Your task to perform on an android device: Go to internet settings Image 0: 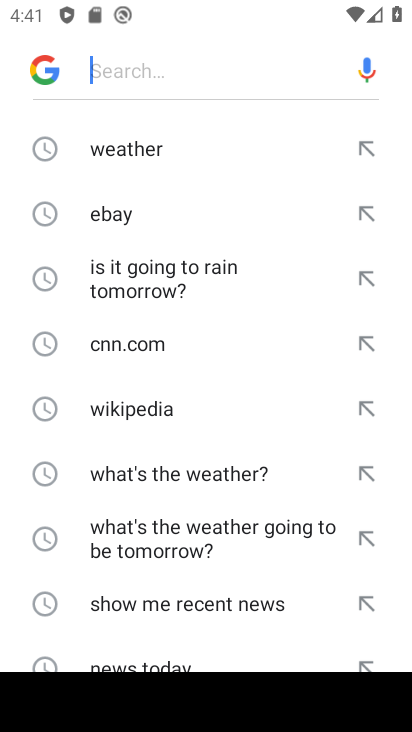
Step 0: press back button
Your task to perform on an android device: Go to internet settings Image 1: 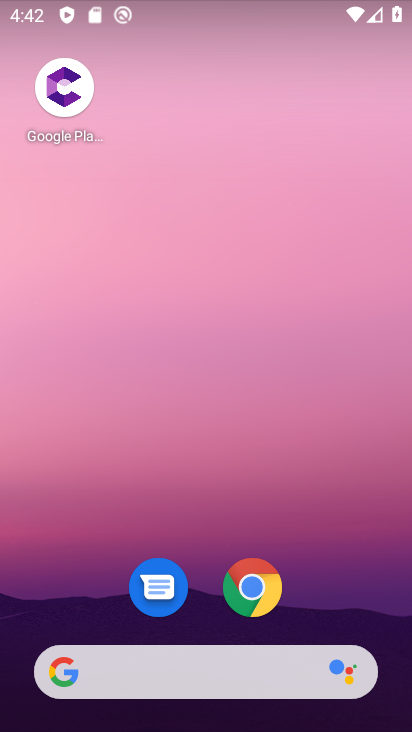
Step 1: drag from (235, 664) to (183, 52)
Your task to perform on an android device: Go to internet settings Image 2: 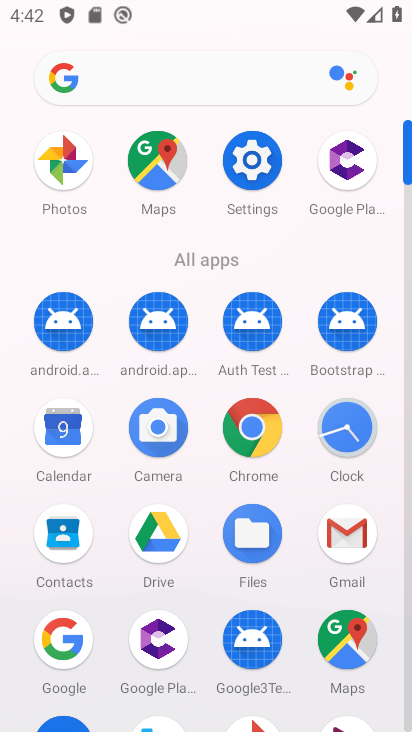
Step 2: click (249, 148)
Your task to perform on an android device: Go to internet settings Image 3: 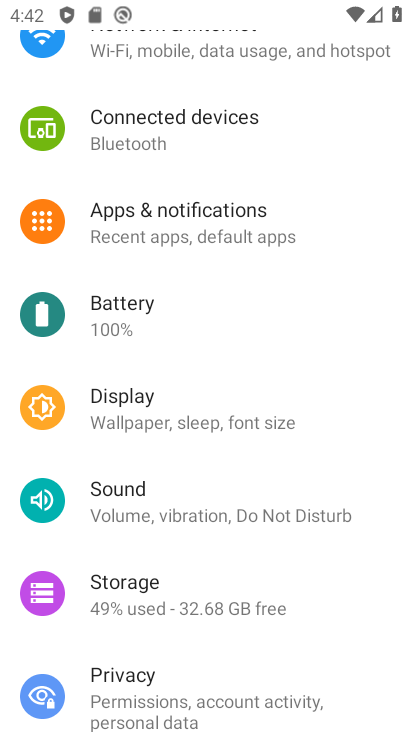
Step 3: drag from (213, 107) to (245, 517)
Your task to perform on an android device: Go to internet settings Image 4: 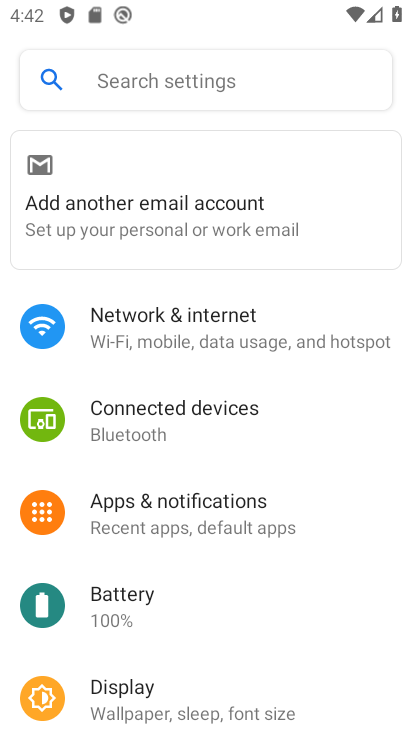
Step 4: click (180, 320)
Your task to perform on an android device: Go to internet settings Image 5: 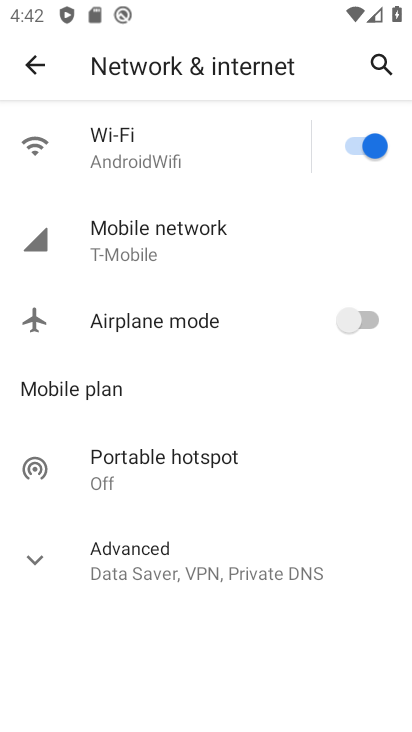
Step 5: task complete